Your task to perform on an android device: Turn on the flashlight Image 0: 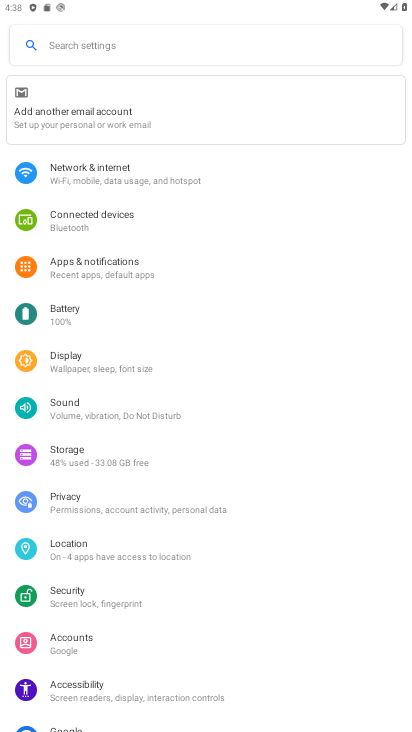
Step 0: task impossible